Your task to perform on an android device: Open settings Image 0: 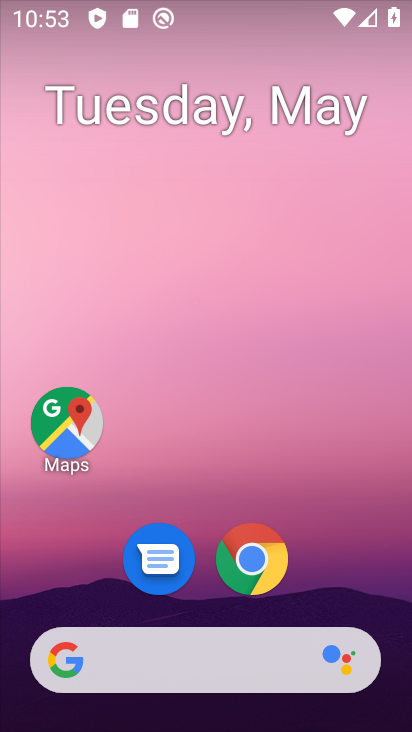
Step 0: drag from (347, 579) to (323, 141)
Your task to perform on an android device: Open settings Image 1: 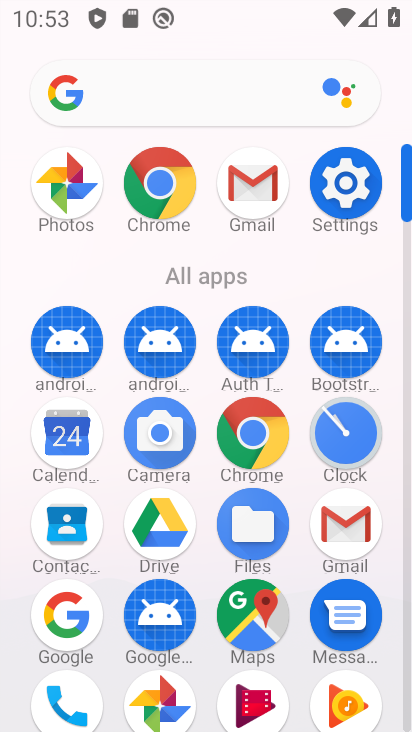
Step 1: click (339, 172)
Your task to perform on an android device: Open settings Image 2: 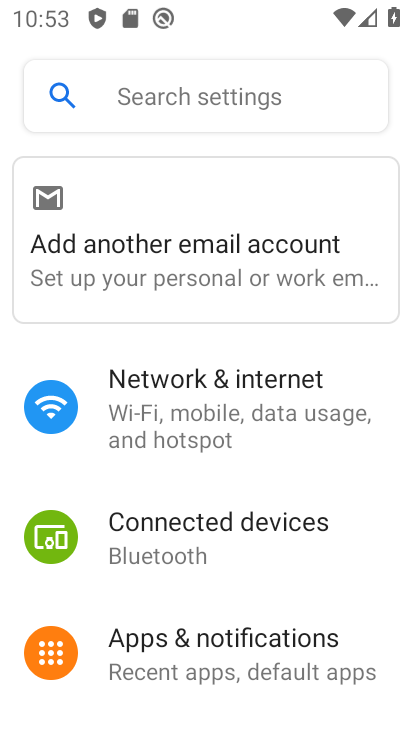
Step 2: task complete